Your task to perform on an android device: find snoozed emails in the gmail app Image 0: 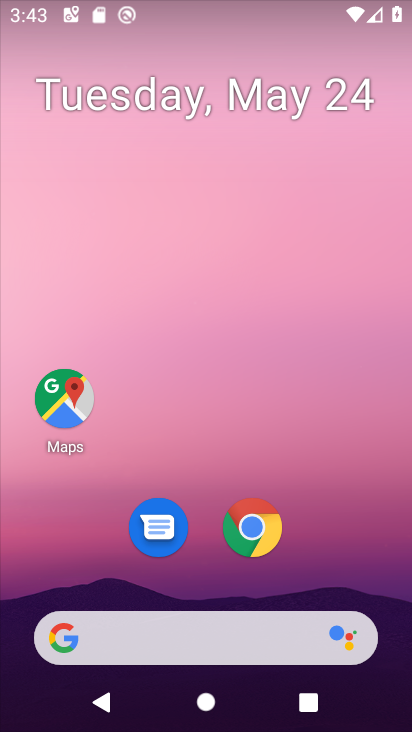
Step 0: drag from (354, 584) to (375, 9)
Your task to perform on an android device: find snoozed emails in the gmail app Image 1: 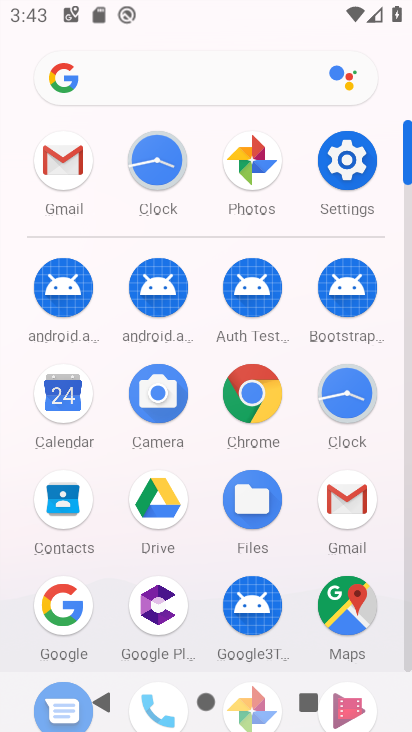
Step 1: click (52, 160)
Your task to perform on an android device: find snoozed emails in the gmail app Image 2: 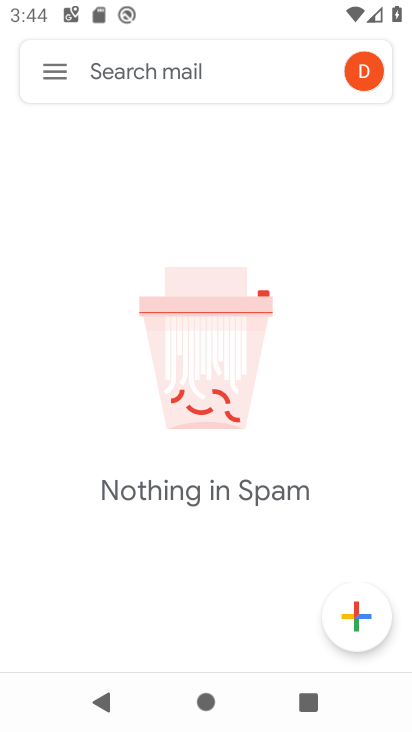
Step 2: click (53, 74)
Your task to perform on an android device: find snoozed emails in the gmail app Image 3: 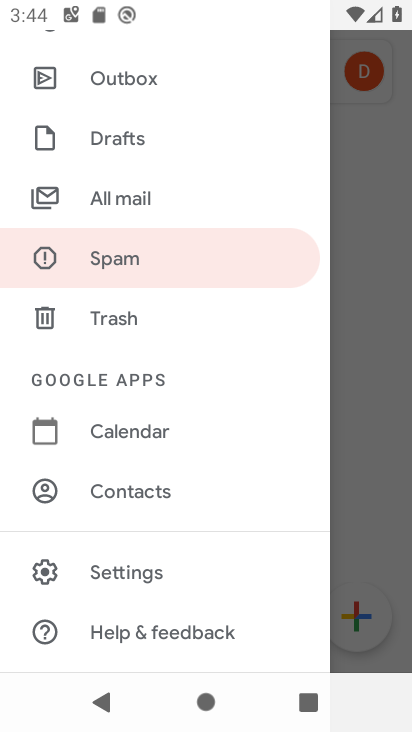
Step 3: drag from (242, 199) to (252, 594)
Your task to perform on an android device: find snoozed emails in the gmail app Image 4: 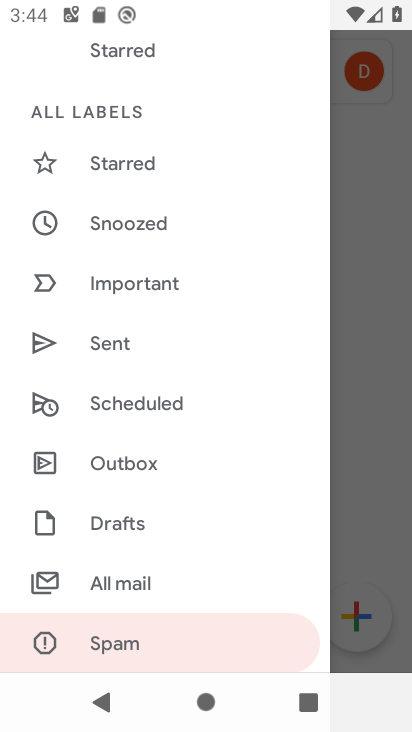
Step 4: click (127, 224)
Your task to perform on an android device: find snoozed emails in the gmail app Image 5: 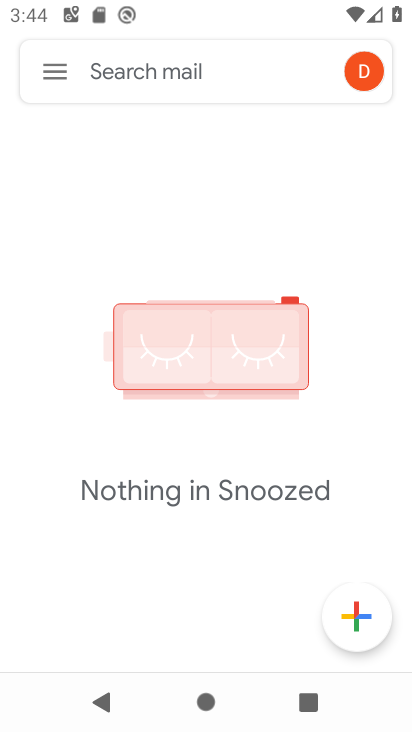
Step 5: task complete